Your task to perform on an android device: Open Google Maps Image 0: 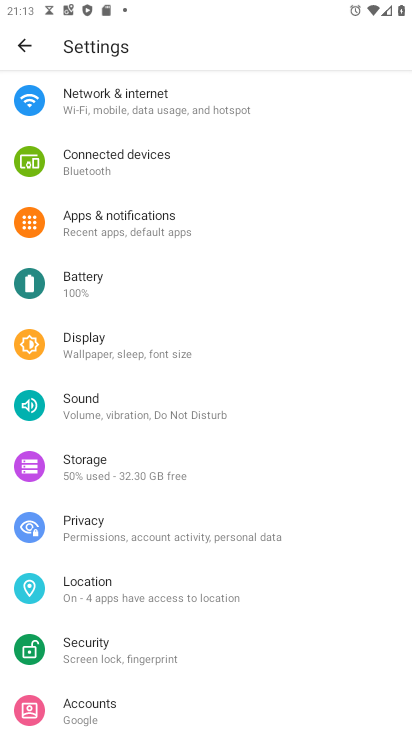
Step 0: press home button
Your task to perform on an android device: Open Google Maps Image 1: 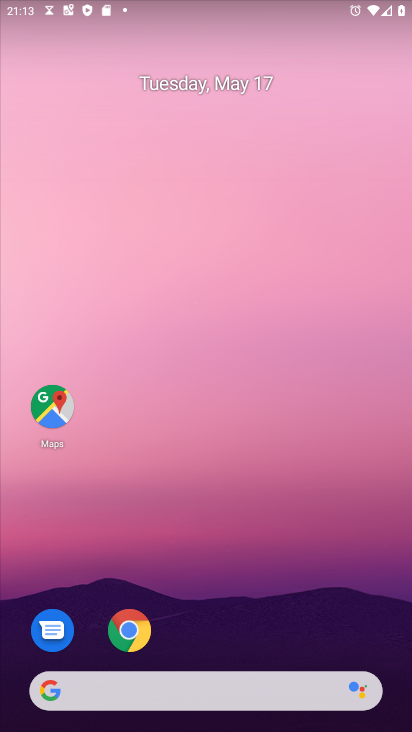
Step 1: click (45, 415)
Your task to perform on an android device: Open Google Maps Image 2: 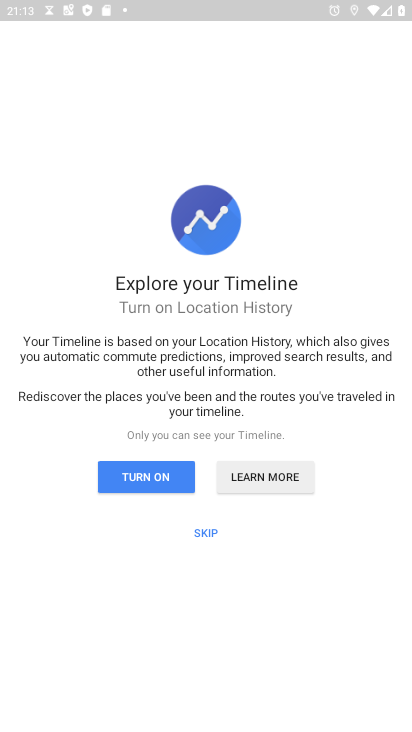
Step 2: task complete